Your task to perform on an android device: Go to Reddit.com Image 0: 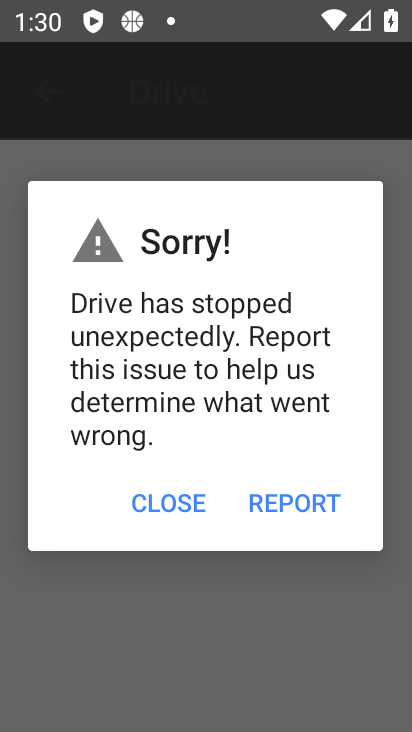
Step 0: press home button
Your task to perform on an android device: Go to Reddit.com Image 1: 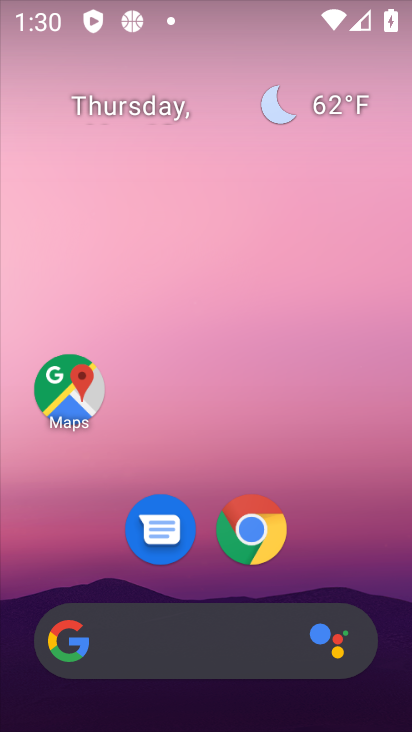
Step 1: click (255, 523)
Your task to perform on an android device: Go to Reddit.com Image 2: 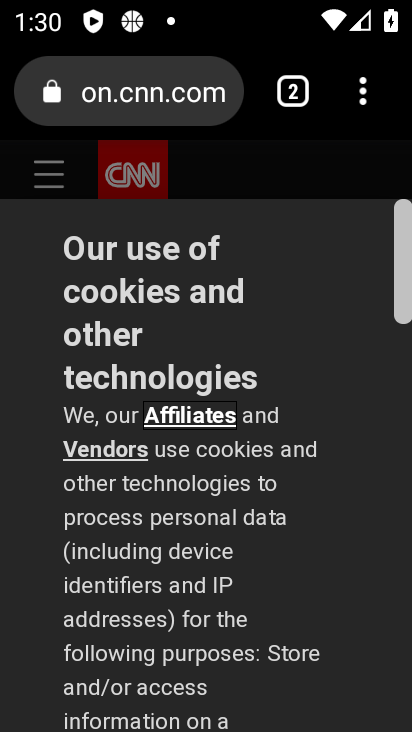
Step 2: click (166, 101)
Your task to perform on an android device: Go to Reddit.com Image 3: 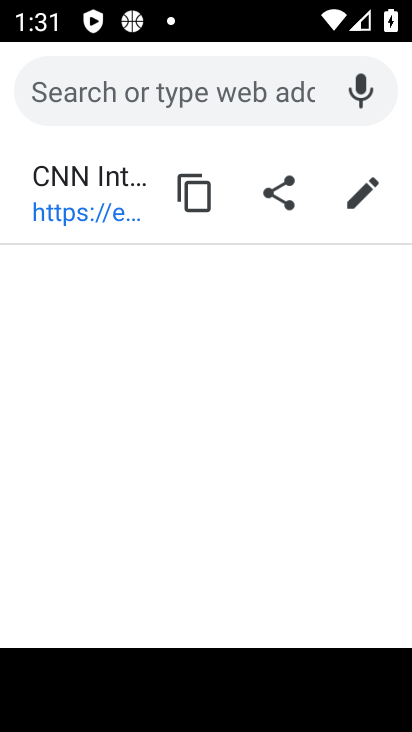
Step 3: type "Reddit.com"
Your task to perform on an android device: Go to Reddit.com Image 4: 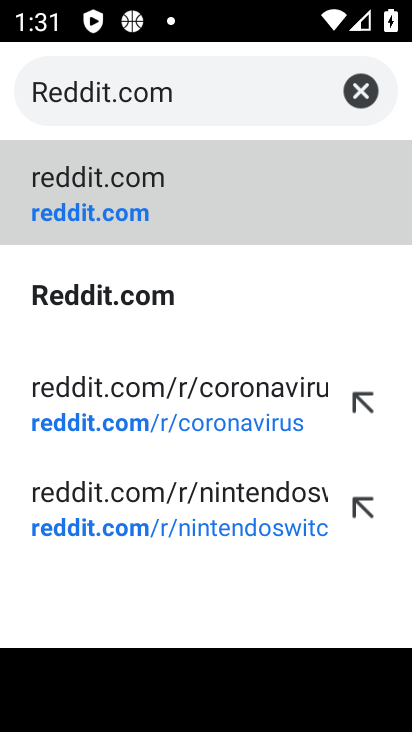
Step 4: click (106, 289)
Your task to perform on an android device: Go to Reddit.com Image 5: 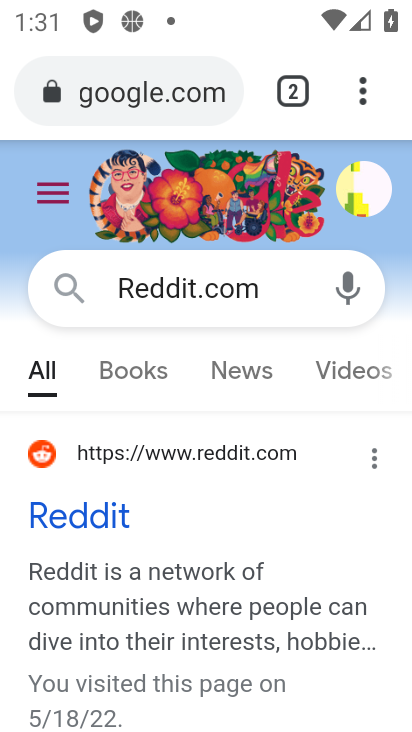
Step 5: click (101, 517)
Your task to perform on an android device: Go to Reddit.com Image 6: 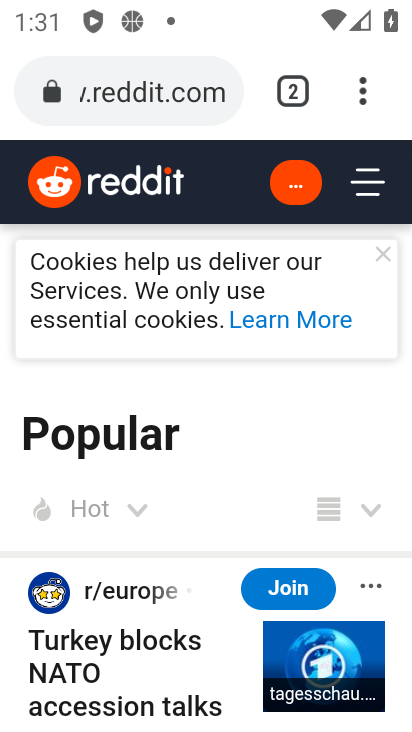
Step 6: task complete